Your task to perform on an android device: Go to calendar. Show me events next week Image 0: 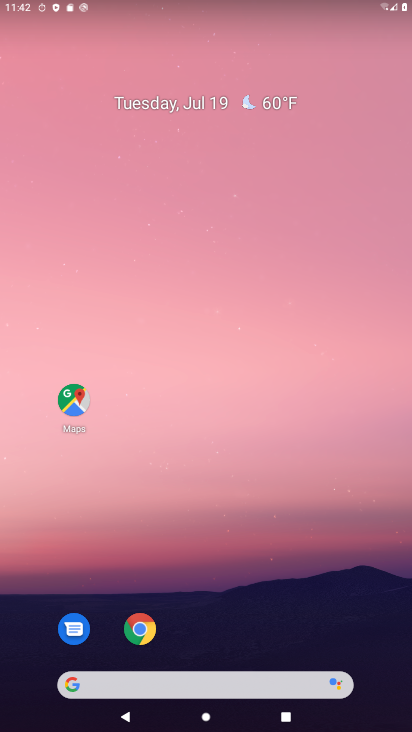
Step 0: drag from (312, 599) to (333, 24)
Your task to perform on an android device: Go to calendar. Show me events next week Image 1: 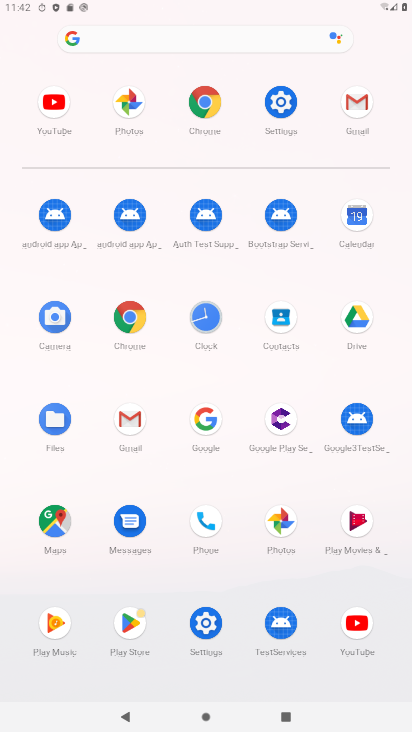
Step 1: click (357, 219)
Your task to perform on an android device: Go to calendar. Show me events next week Image 2: 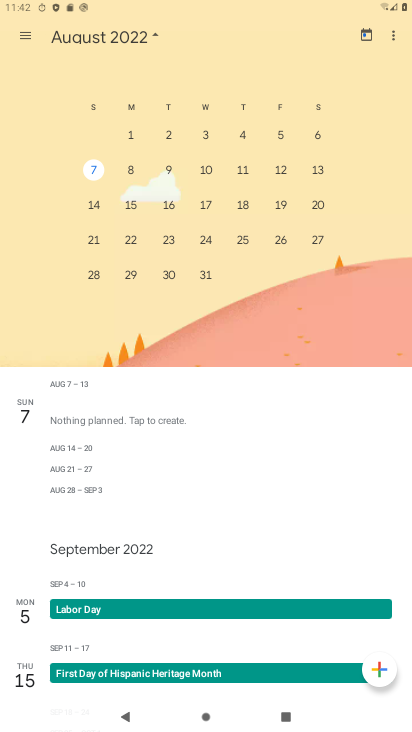
Step 2: drag from (25, 294) to (370, 327)
Your task to perform on an android device: Go to calendar. Show me events next week Image 3: 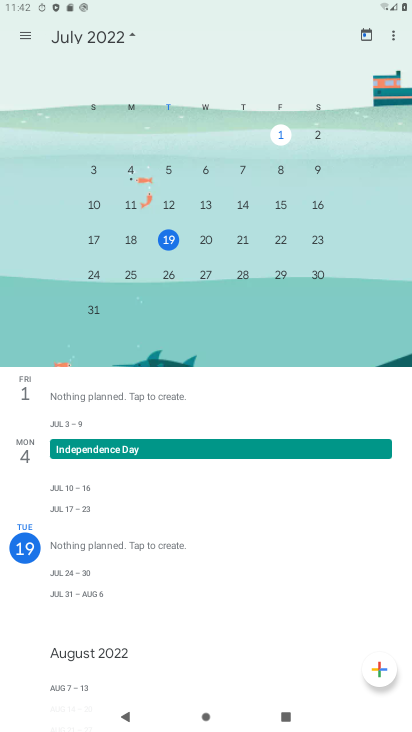
Step 3: click (101, 270)
Your task to perform on an android device: Go to calendar. Show me events next week Image 4: 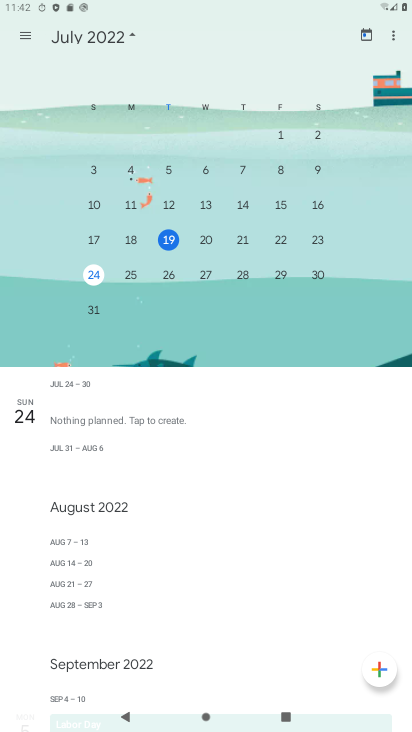
Step 4: click (133, 270)
Your task to perform on an android device: Go to calendar. Show me events next week Image 5: 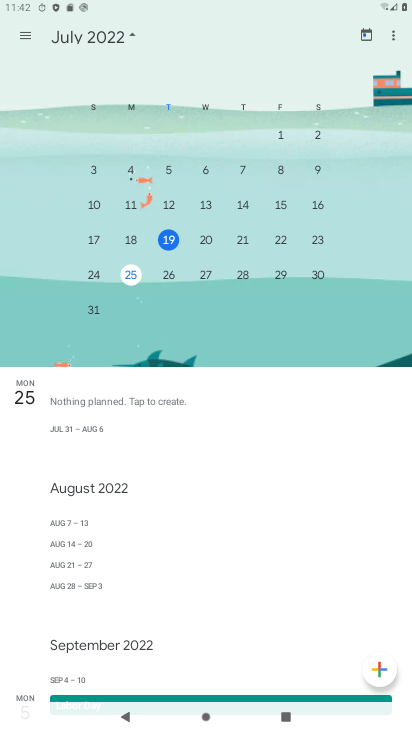
Step 5: click (179, 270)
Your task to perform on an android device: Go to calendar. Show me events next week Image 6: 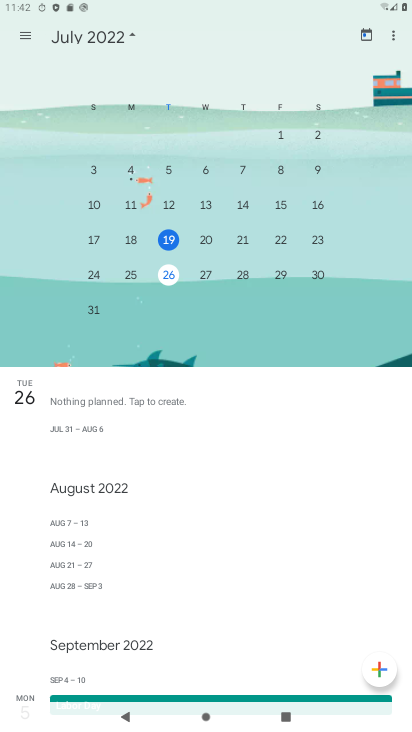
Step 6: click (209, 271)
Your task to perform on an android device: Go to calendar. Show me events next week Image 7: 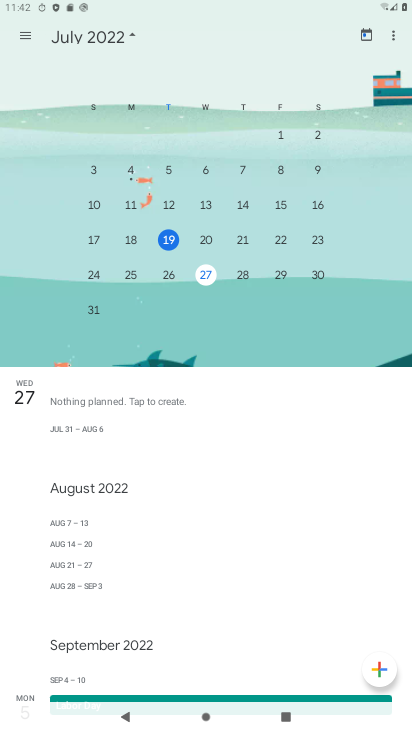
Step 7: click (259, 278)
Your task to perform on an android device: Go to calendar. Show me events next week Image 8: 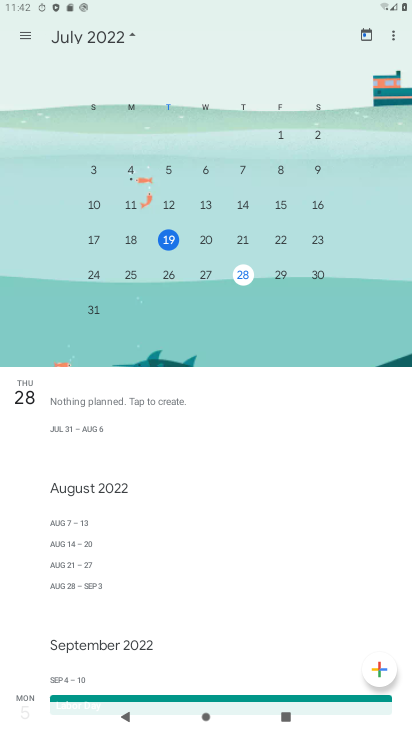
Step 8: click (280, 278)
Your task to perform on an android device: Go to calendar. Show me events next week Image 9: 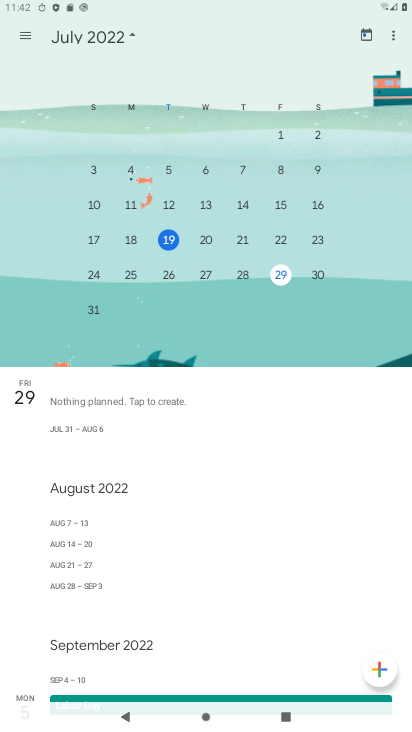
Step 9: click (315, 278)
Your task to perform on an android device: Go to calendar. Show me events next week Image 10: 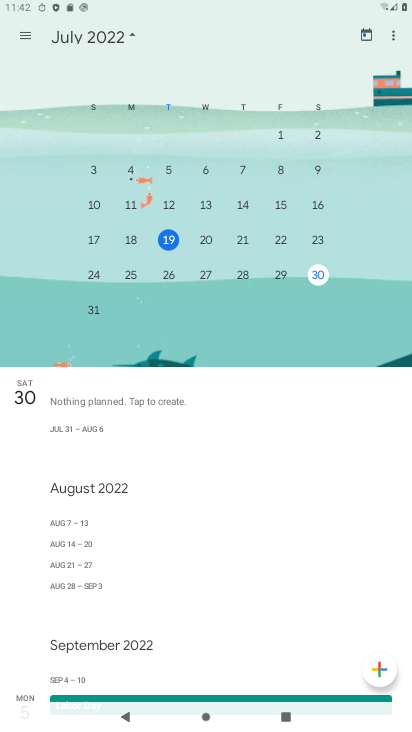
Step 10: task complete